Your task to perform on an android device: Go to battery settings Image 0: 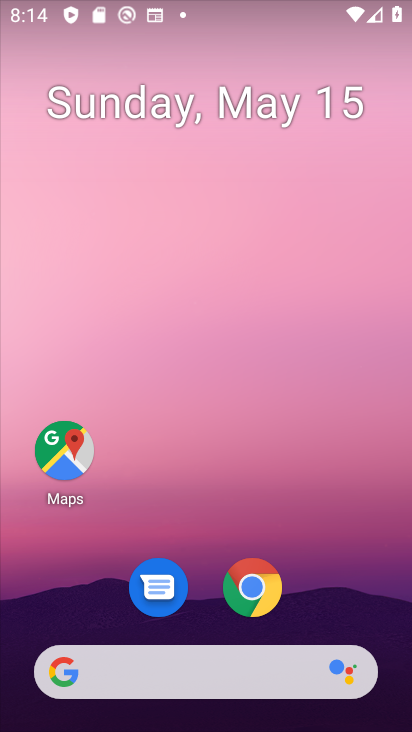
Step 0: drag from (191, 587) to (211, 225)
Your task to perform on an android device: Go to battery settings Image 1: 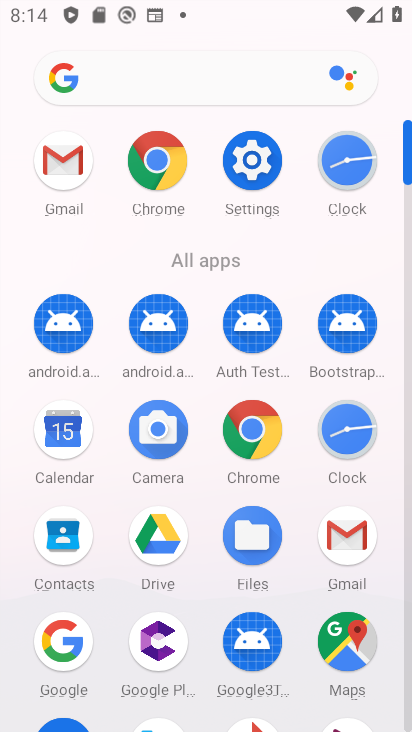
Step 1: click (256, 155)
Your task to perform on an android device: Go to battery settings Image 2: 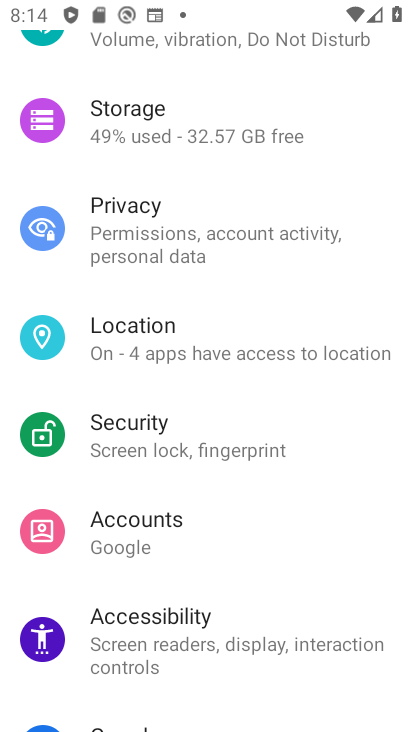
Step 2: drag from (202, 169) to (179, 554)
Your task to perform on an android device: Go to battery settings Image 3: 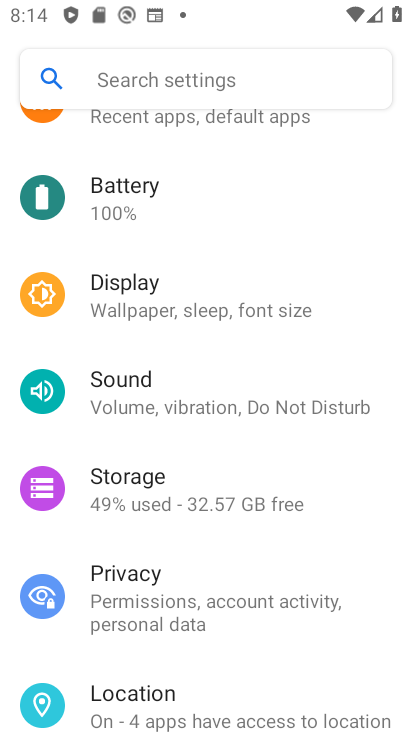
Step 3: click (121, 209)
Your task to perform on an android device: Go to battery settings Image 4: 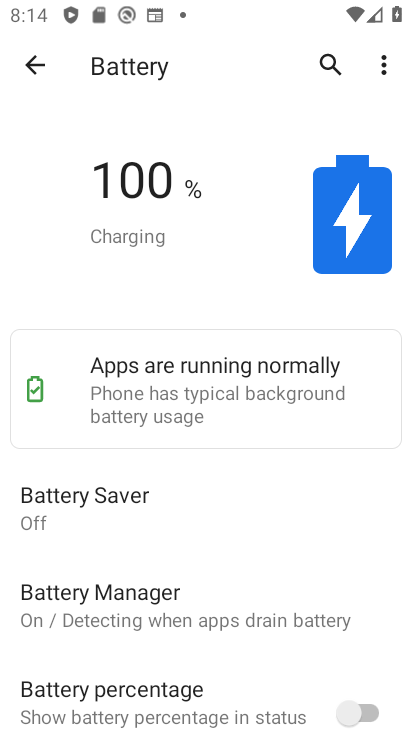
Step 4: task complete